Your task to perform on an android device: Play the last video I watched on Youtube Image 0: 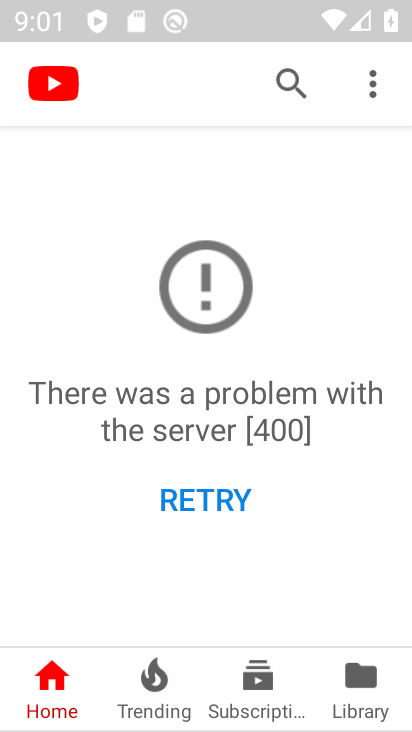
Step 0: task impossible